Your task to perform on an android device: Show the shopping cart on ebay. Image 0: 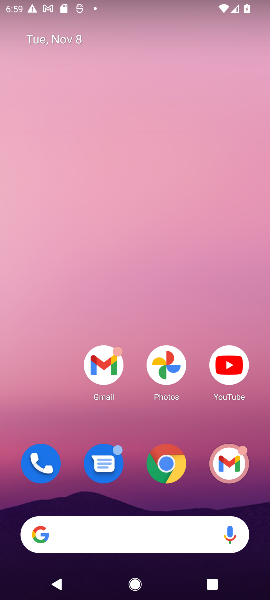
Step 0: click (168, 468)
Your task to perform on an android device: Show the shopping cart on ebay. Image 1: 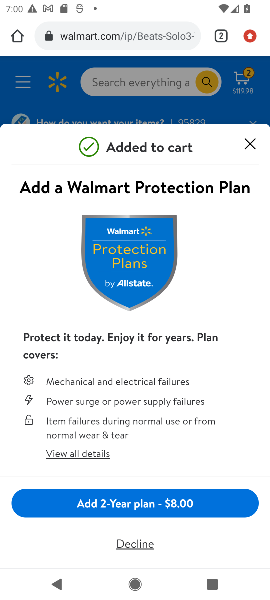
Step 1: click (112, 34)
Your task to perform on an android device: Show the shopping cart on ebay. Image 2: 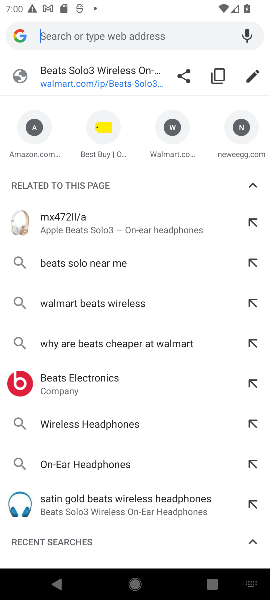
Step 2: type "ebay"
Your task to perform on an android device: Show the shopping cart on ebay. Image 3: 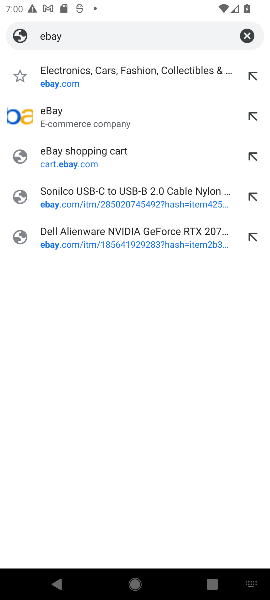
Step 3: click (59, 117)
Your task to perform on an android device: Show the shopping cart on ebay. Image 4: 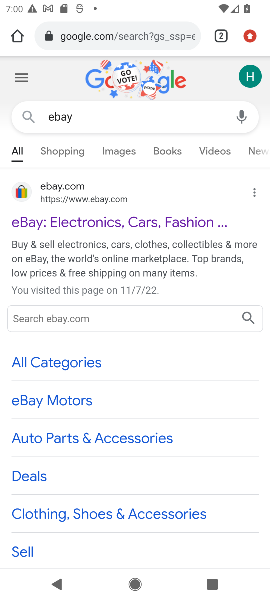
Step 4: click (72, 226)
Your task to perform on an android device: Show the shopping cart on ebay. Image 5: 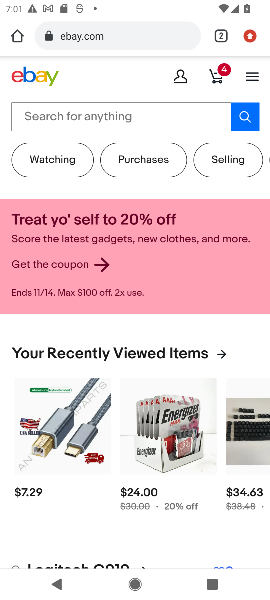
Step 5: click (222, 67)
Your task to perform on an android device: Show the shopping cart on ebay. Image 6: 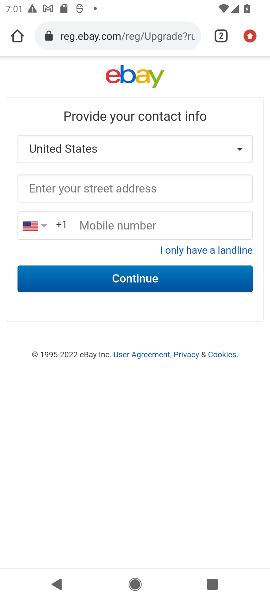
Step 6: task complete